Your task to perform on an android device: show emergency info Image 0: 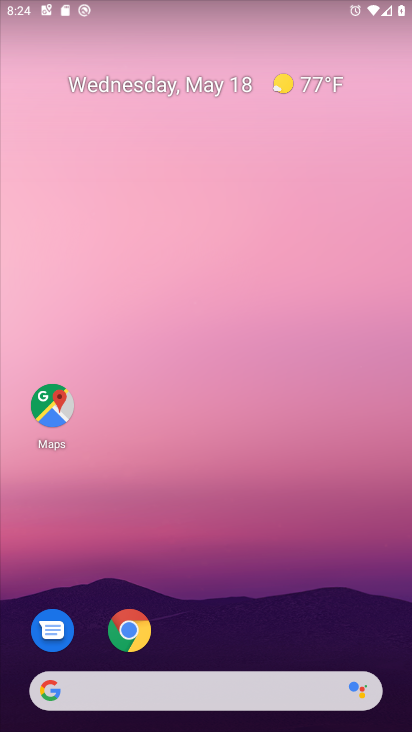
Step 0: drag from (262, 599) to (318, 174)
Your task to perform on an android device: show emergency info Image 1: 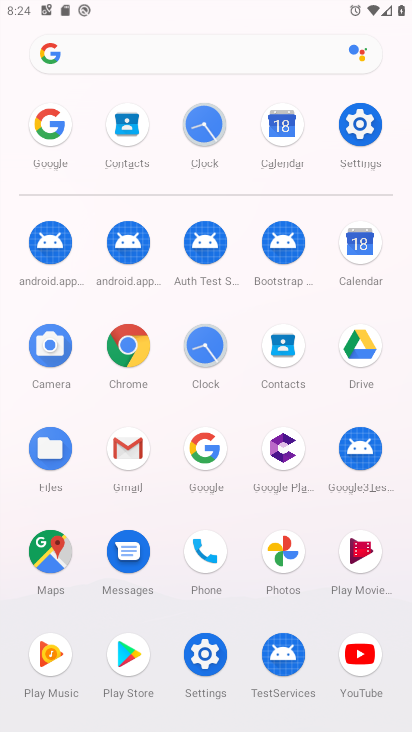
Step 1: click (363, 113)
Your task to perform on an android device: show emergency info Image 2: 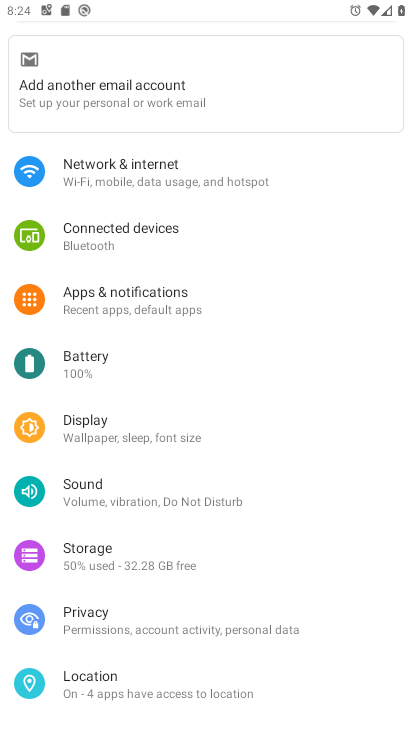
Step 2: drag from (288, 260) to (291, 477)
Your task to perform on an android device: show emergency info Image 3: 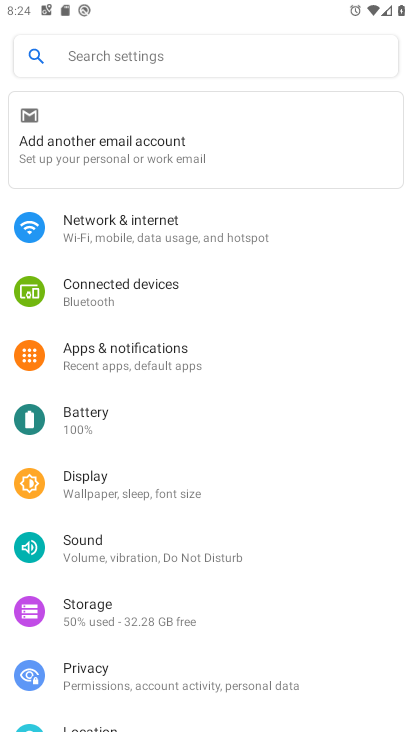
Step 3: click (186, 55)
Your task to perform on an android device: show emergency info Image 4: 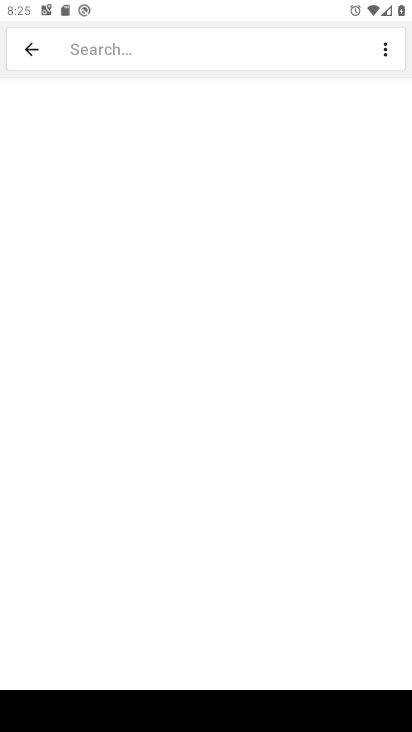
Step 4: type "emergency info"
Your task to perform on an android device: show emergency info Image 5: 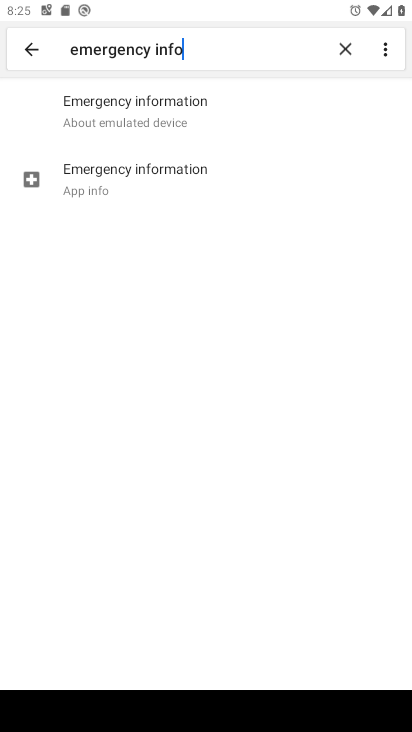
Step 5: click (195, 186)
Your task to perform on an android device: show emergency info Image 6: 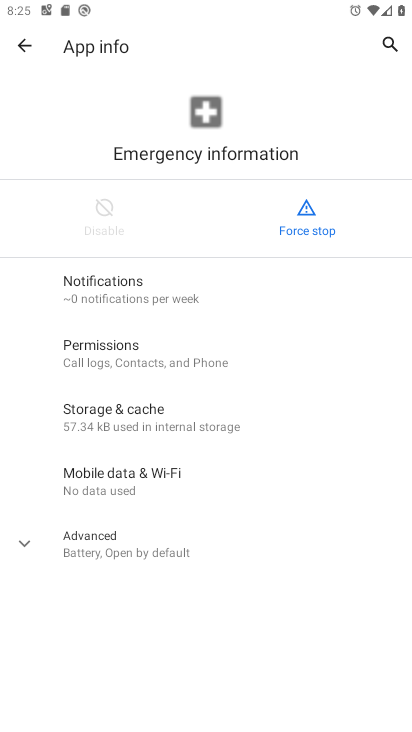
Step 6: task complete